Your task to perform on an android device: turn off javascript in the chrome app Image 0: 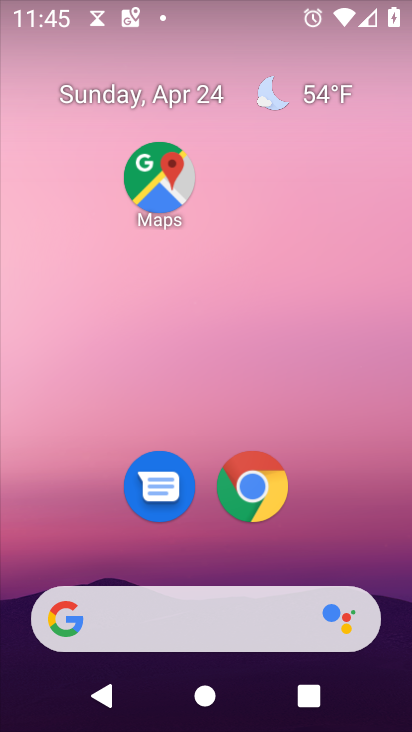
Step 0: click (268, 523)
Your task to perform on an android device: turn off javascript in the chrome app Image 1: 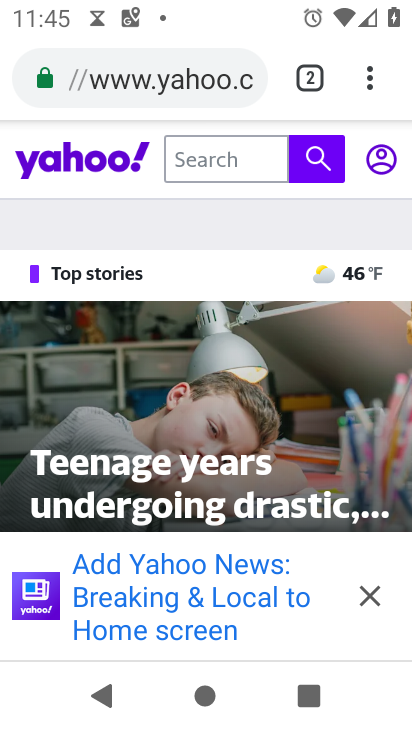
Step 1: click (382, 84)
Your task to perform on an android device: turn off javascript in the chrome app Image 2: 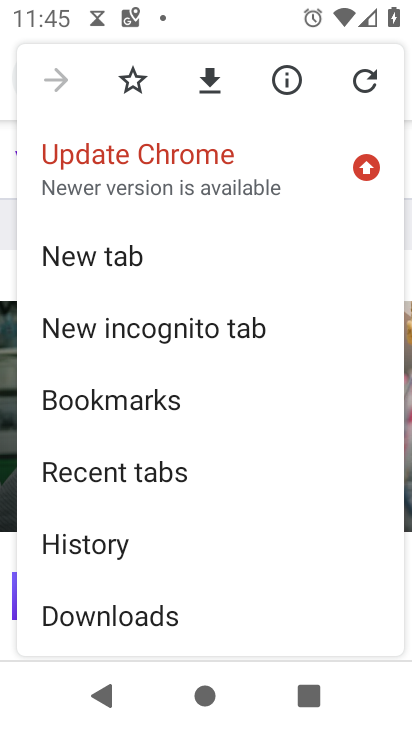
Step 2: drag from (240, 531) to (283, 200)
Your task to perform on an android device: turn off javascript in the chrome app Image 3: 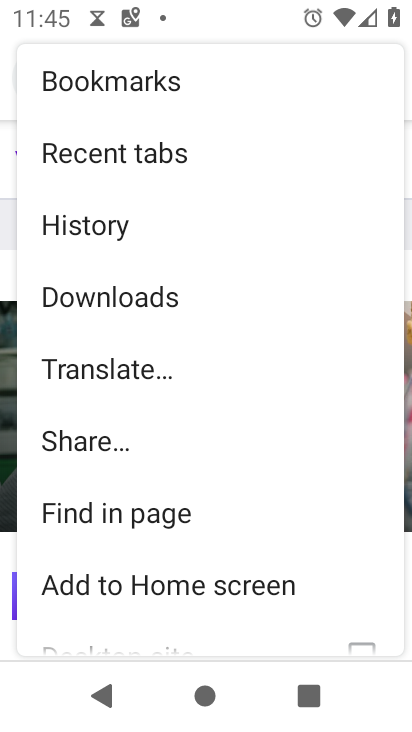
Step 3: drag from (224, 523) to (268, 240)
Your task to perform on an android device: turn off javascript in the chrome app Image 4: 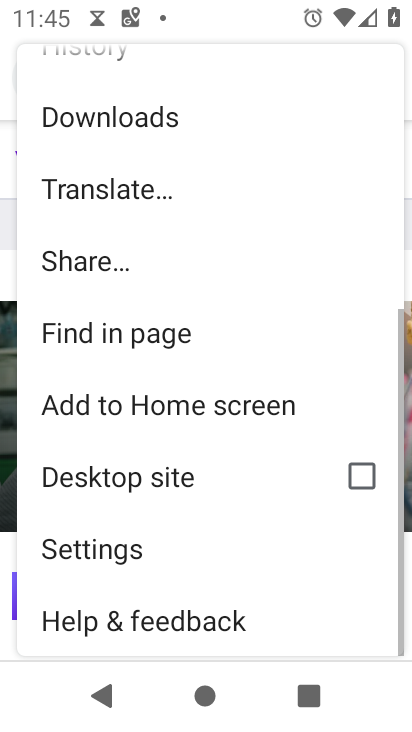
Step 4: click (175, 572)
Your task to perform on an android device: turn off javascript in the chrome app Image 5: 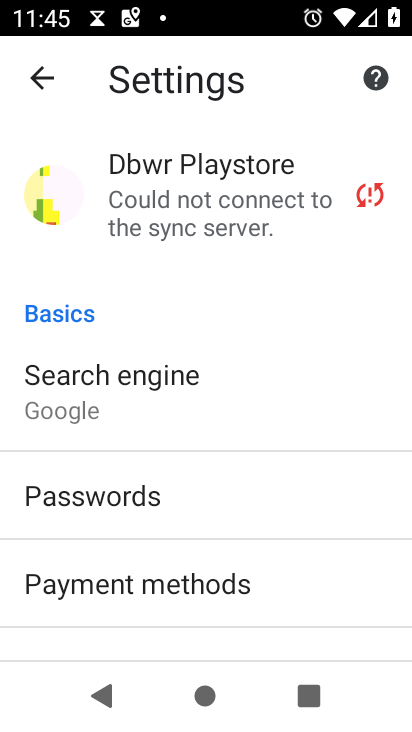
Step 5: drag from (245, 528) to (264, 221)
Your task to perform on an android device: turn off javascript in the chrome app Image 6: 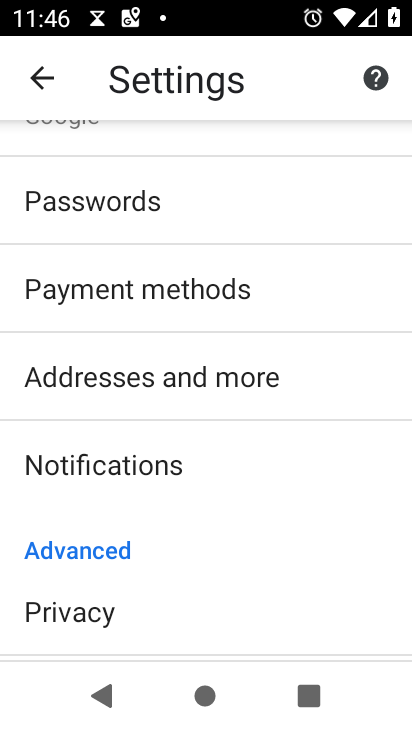
Step 6: drag from (238, 618) to (279, 334)
Your task to perform on an android device: turn off javascript in the chrome app Image 7: 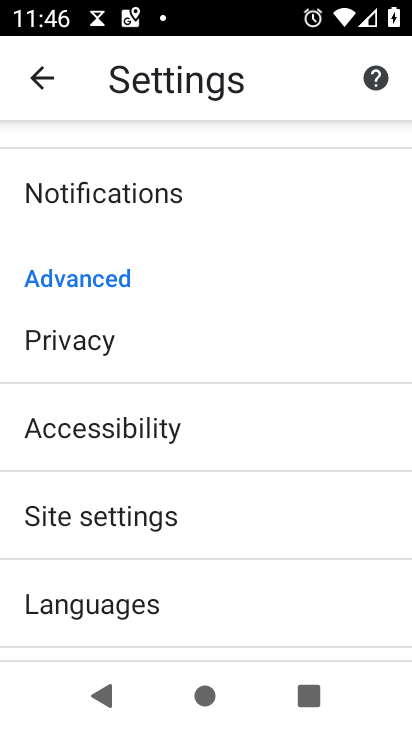
Step 7: click (162, 525)
Your task to perform on an android device: turn off javascript in the chrome app Image 8: 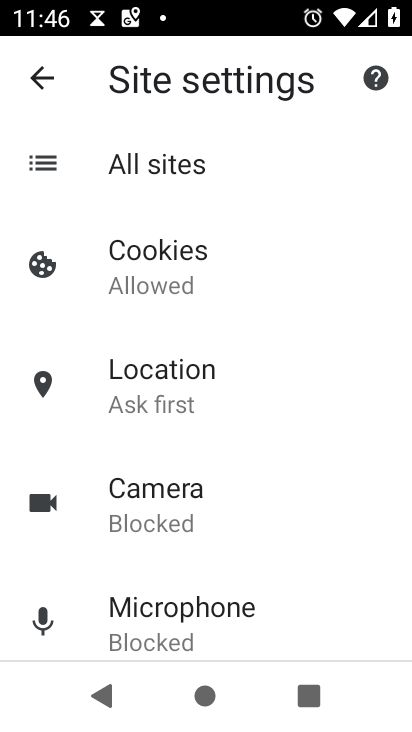
Step 8: drag from (172, 590) to (296, 211)
Your task to perform on an android device: turn off javascript in the chrome app Image 9: 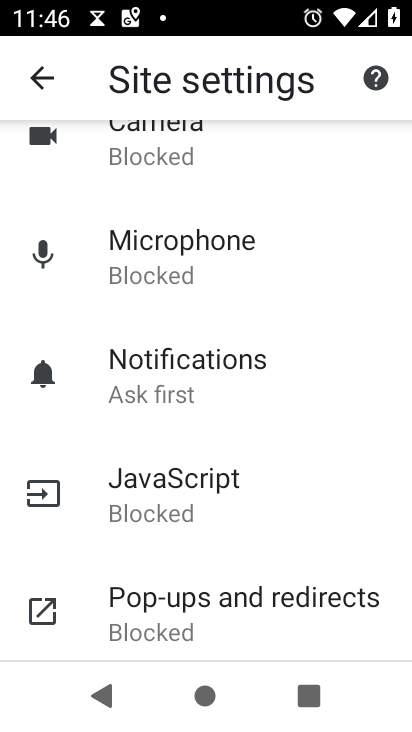
Step 9: click (221, 479)
Your task to perform on an android device: turn off javascript in the chrome app Image 10: 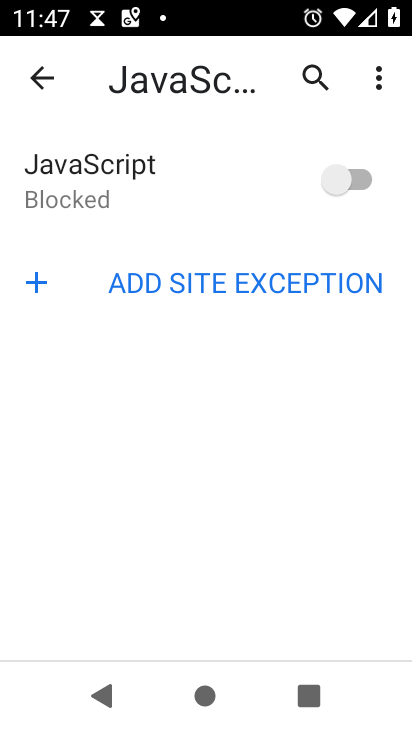
Step 10: task complete